Your task to perform on an android device: turn off smart reply in the gmail app Image 0: 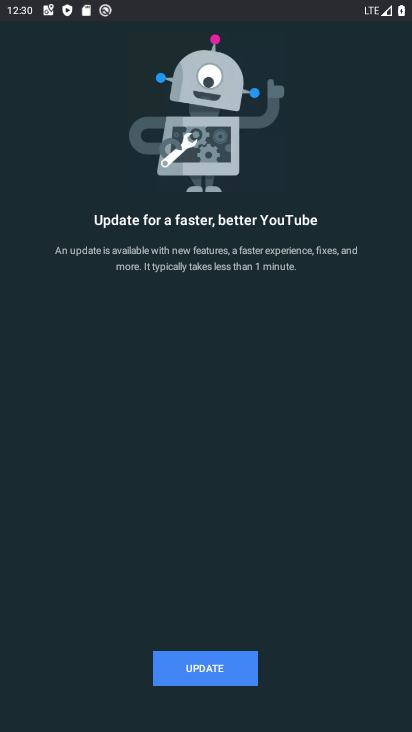
Step 0: press home button
Your task to perform on an android device: turn off smart reply in the gmail app Image 1: 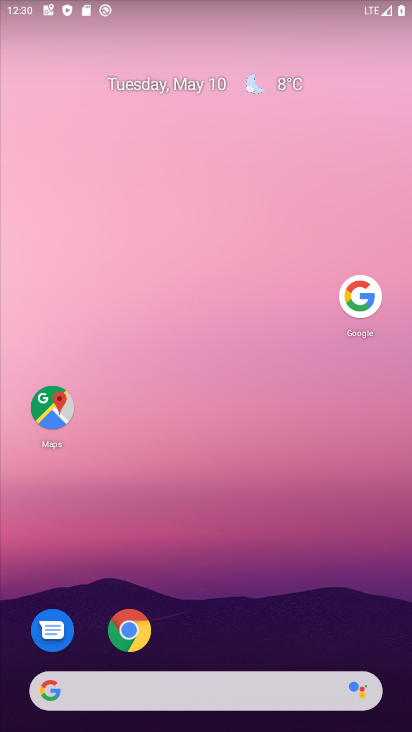
Step 1: drag from (228, 690) to (363, 253)
Your task to perform on an android device: turn off smart reply in the gmail app Image 2: 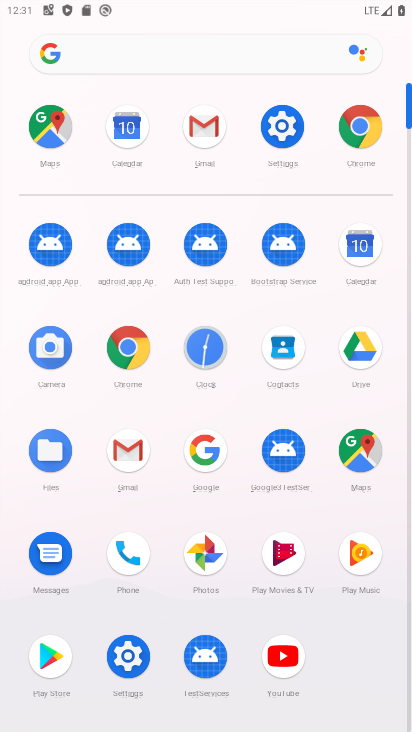
Step 2: click (200, 129)
Your task to perform on an android device: turn off smart reply in the gmail app Image 3: 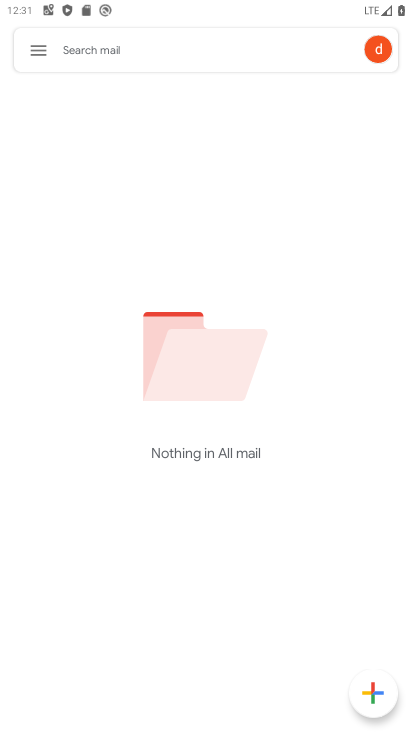
Step 3: click (42, 49)
Your task to perform on an android device: turn off smart reply in the gmail app Image 4: 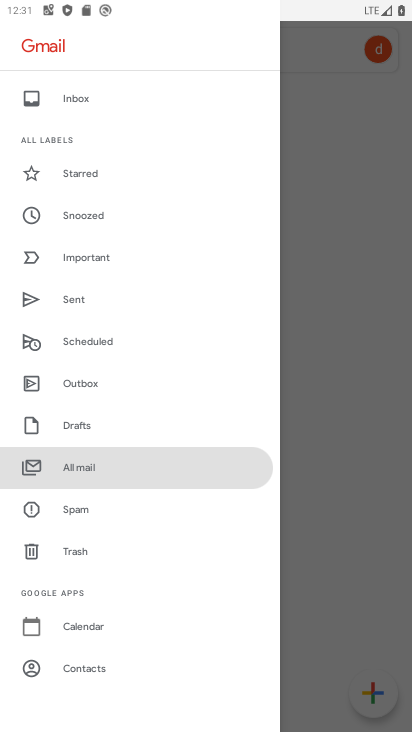
Step 4: drag from (109, 648) to (226, 260)
Your task to perform on an android device: turn off smart reply in the gmail app Image 5: 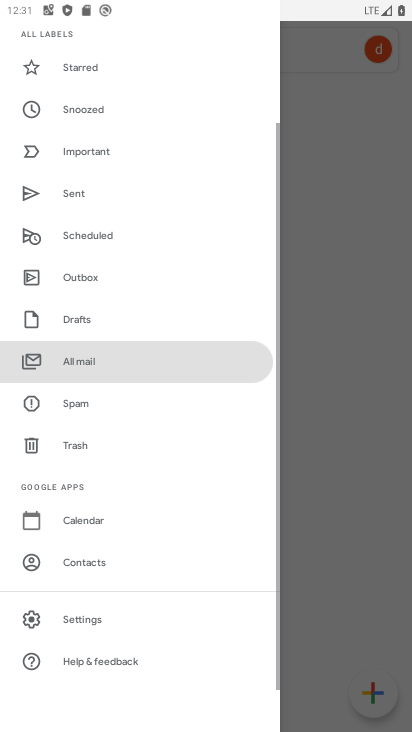
Step 5: click (80, 621)
Your task to perform on an android device: turn off smart reply in the gmail app Image 6: 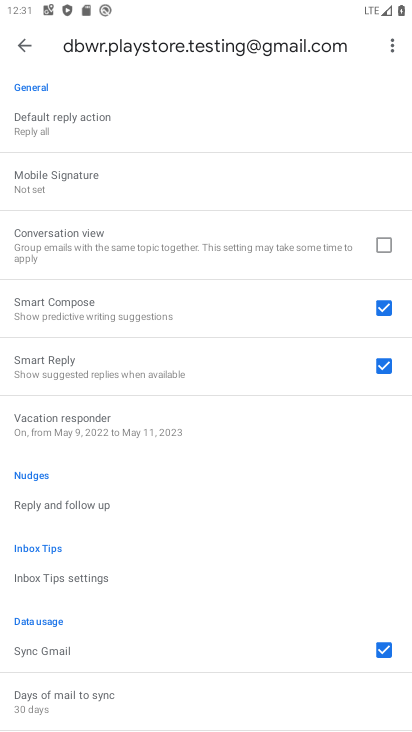
Step 6: click (377, 366)
Your task to perform on an android device: turn off smart reply in the gmail app Image 7: 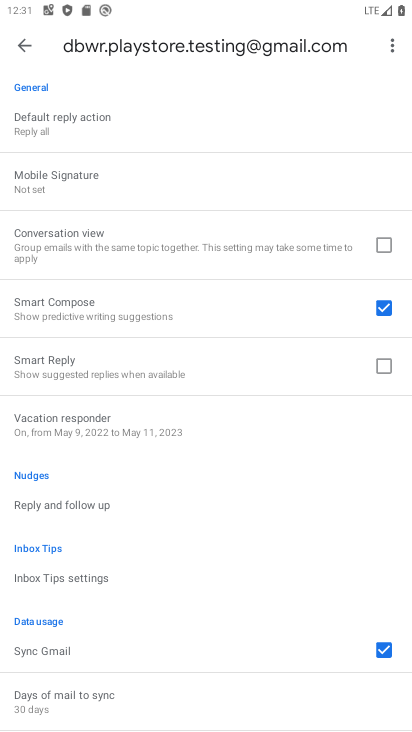
Step 7: task complete